Your task to perform on an android device: Open Chrome and go to settings Image 0: 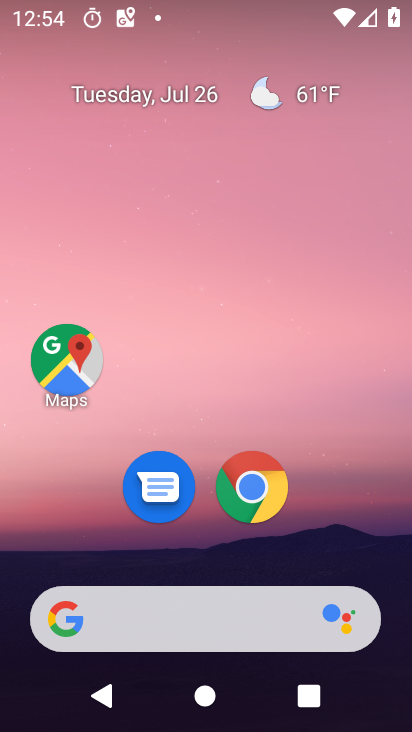
Step 0: click (242, 481)
Your task to perform on an android device: Open Chrome and go to settings Image 1: 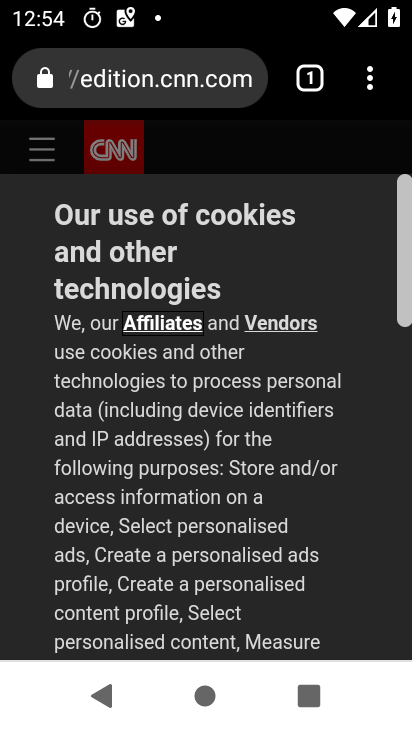
Step 1: task complete